Your task to perform on an android device: Go to Yahoo.com Image 0: 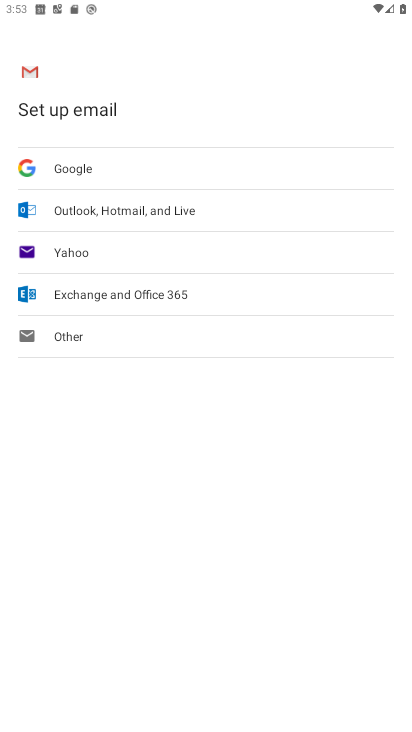
Step 0: press home button
Your task to perform on an android device: Go to Yahoo.com Image 1: 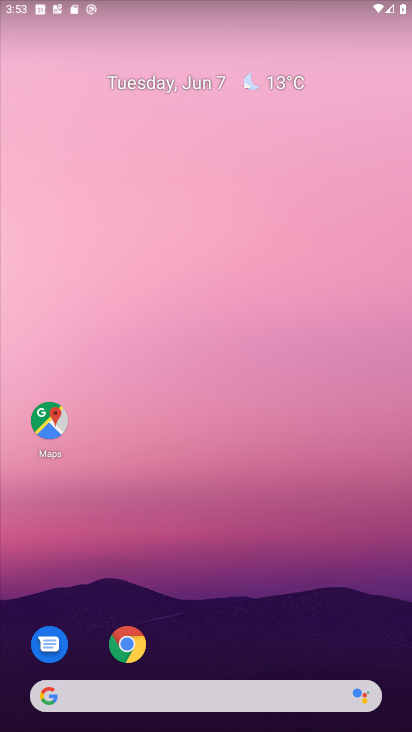
Step 1: drag from (361, 595) to (362, 156)
Your task to perform on an android device: Go to Yahoo.com Image 2: 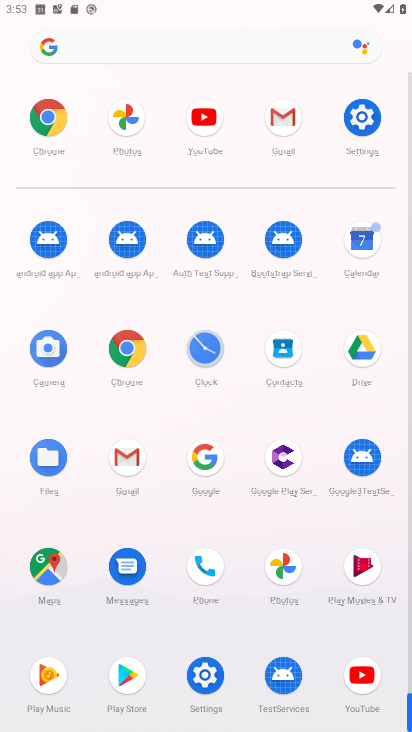
Step 2: click (123, 350)
Your task to perform on an android device: Go to Yahoo.com Image 3: 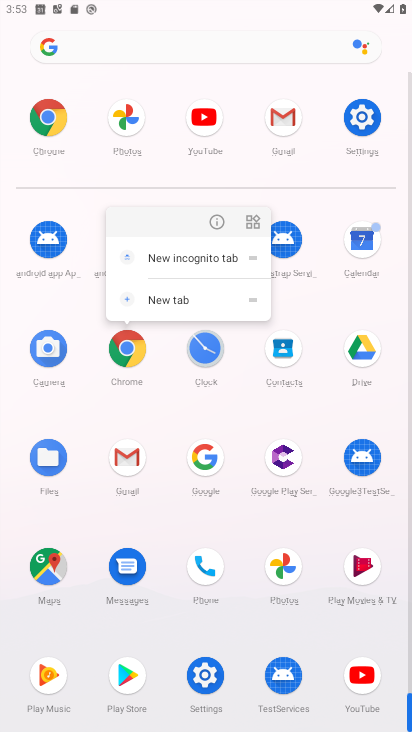
Step 3: click (123, 350)
Your task to perform on an android device: Go to Yahoo.com Image 4: 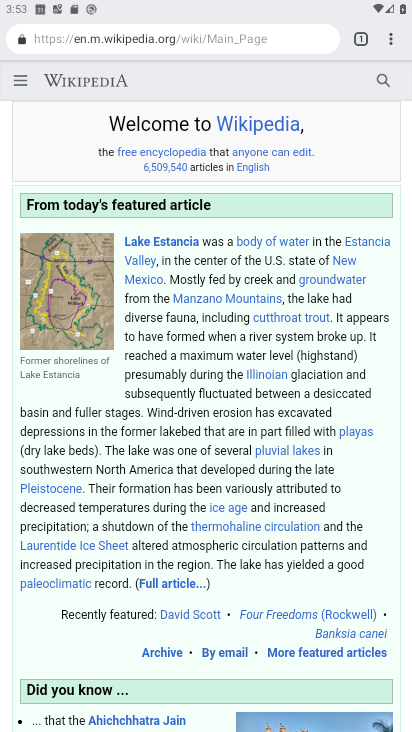
Step 4: click (201, 38)
Your task to perform on an android device: Go to Yahoo.com Image 5: 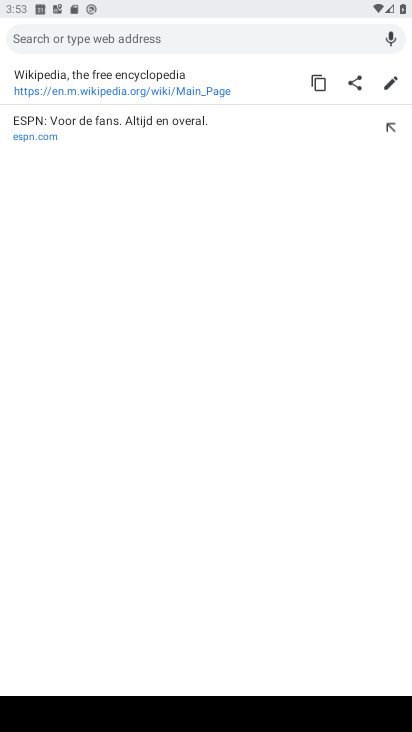
Step 5: type "yahoo.com"
Your task to perform on an android device: Go to Yahoo.com Image 6: 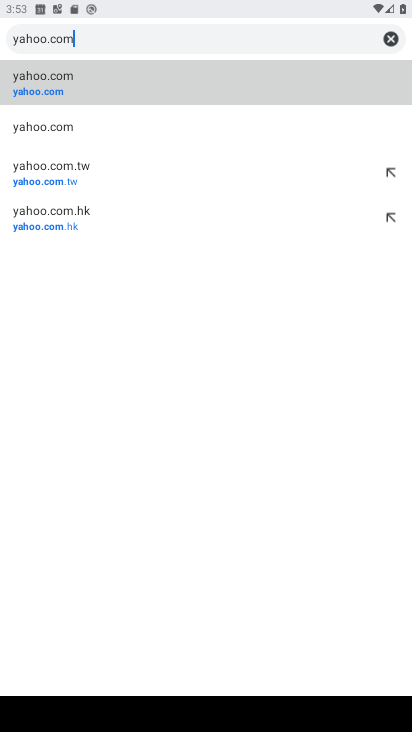
Step 6: click (121, 96)
Your task to perform on an android device: Go to Yahoo.com Image 7: 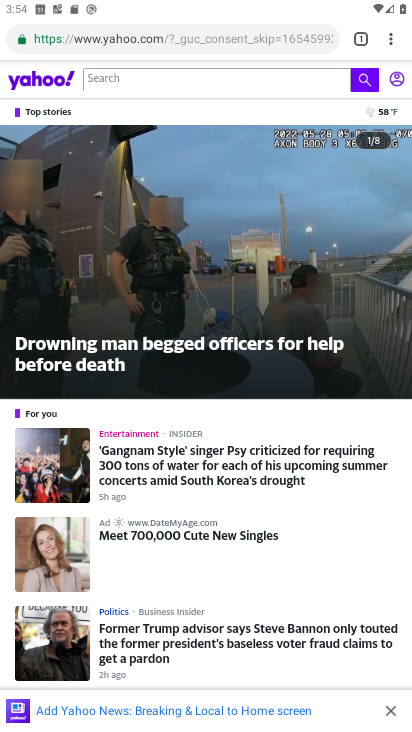
Step 7: task complete